Your task to perform on an android device: Show me popular videos on Youtube Image 0: 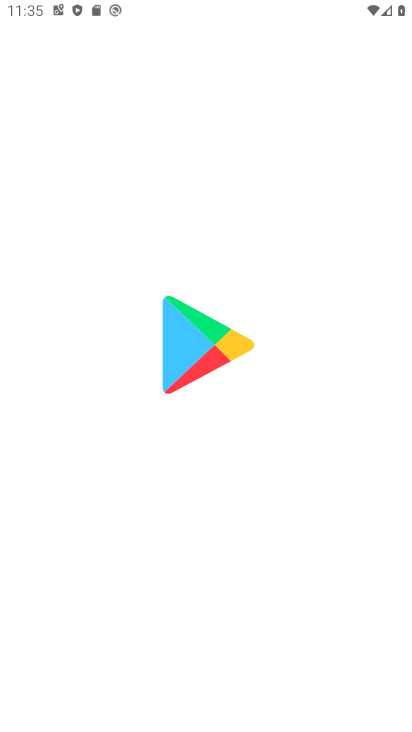
Step 0: press home button
Your task to perform on an android device: Show me popular videos on Youtube Image 1: 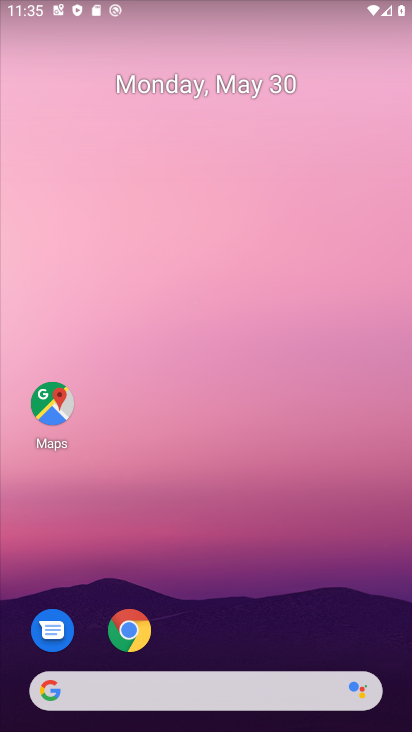
Step 1: drag from (273, 624) to (268, 6)
Your task to perform on an android device: Show me popular videos on Youtube Image 2: 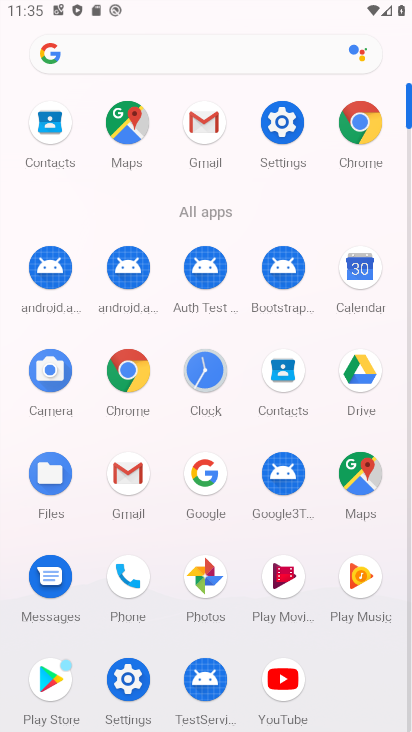
Step 2: click (280, 677)
Your task to perform on an android device: Show me popular videos on Youtube Image 3: 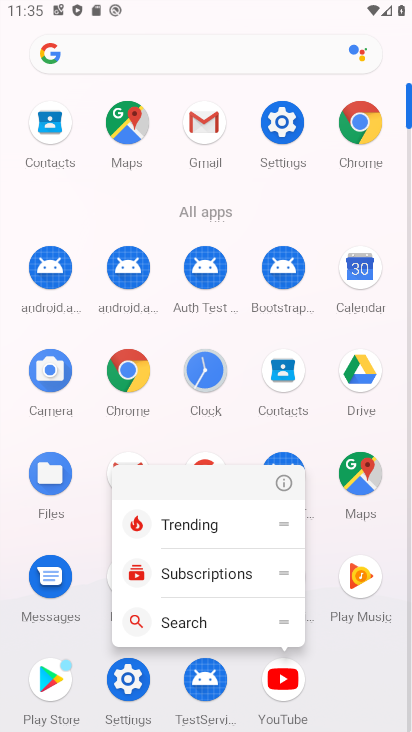
Step 3: click (281, 680)
Your task to perform on an android device: Show me popular videos on Youtube Image 4: 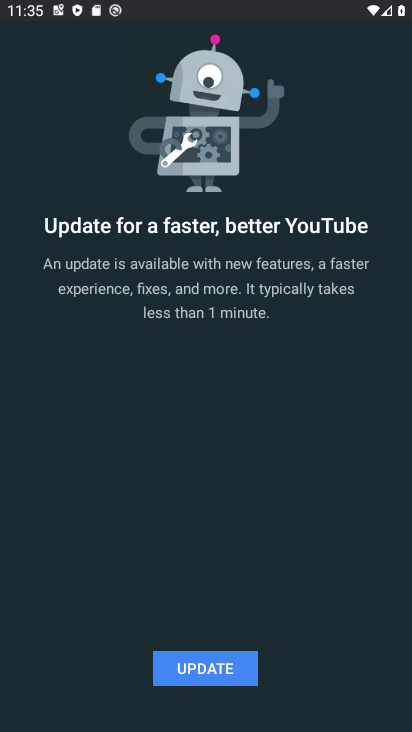
Step 4: click (211, 682)
Your task to perform on an android device: Show me popular videos on Youtube Image 5: 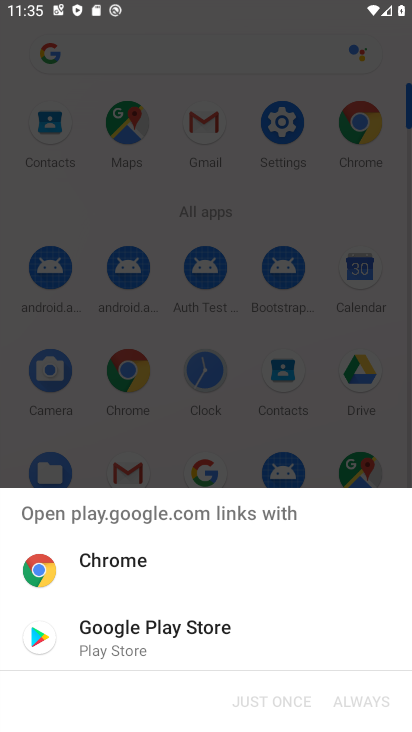
Step 5: click (68, 633)
Your task to perform on an android device: Show me popular videos on Youtube Image 6: 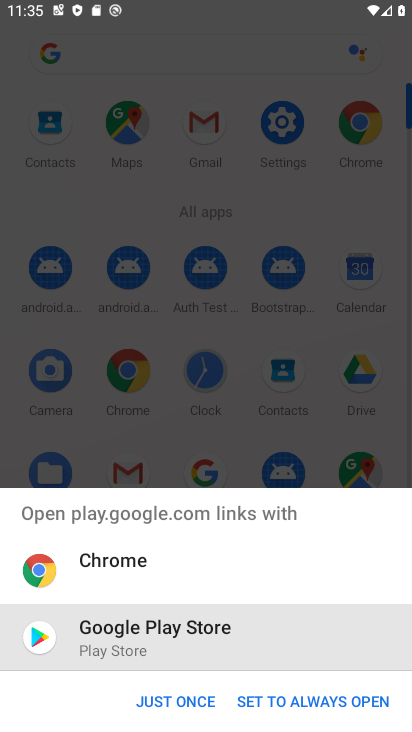
Step 6: click (149, 704)
Your task to perform on an android device: Show me popular videos on Youtube Image 7: 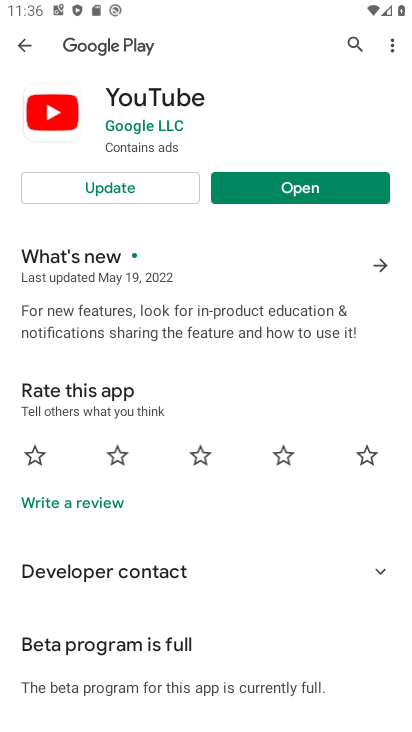
Step 7: click (104, 178)
Your task to perform on an android device: Show me popular videos on Youtube Image 8: 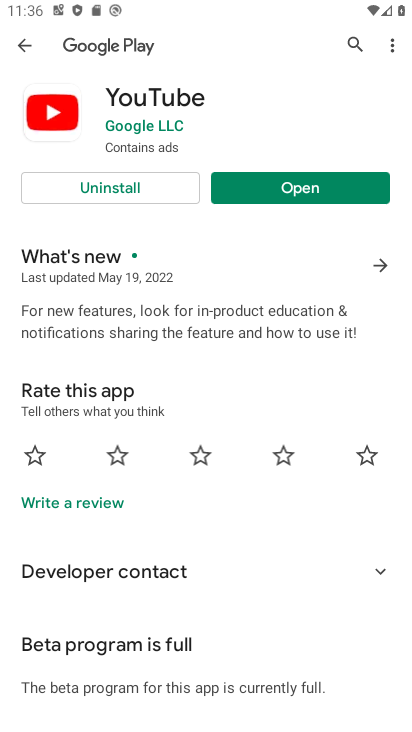
Step 8: click (300, 191)
Your task to perform on an android device: Show me popular videos on Youtube Image 9: 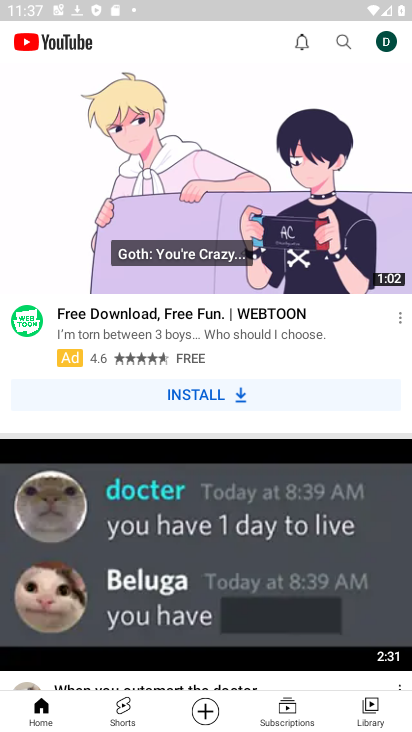
Step 9: click (30, 717)
Your task to perform on an android device: Show me popular videos on Youtube Image 10: 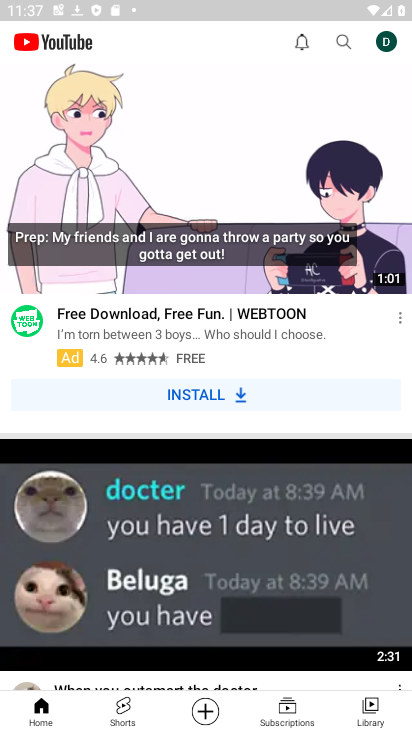
Step 10: drag from (140, 228) to (157, 563)
Your task to perform on an android device: Show me popular videos on Youtube Image 11: 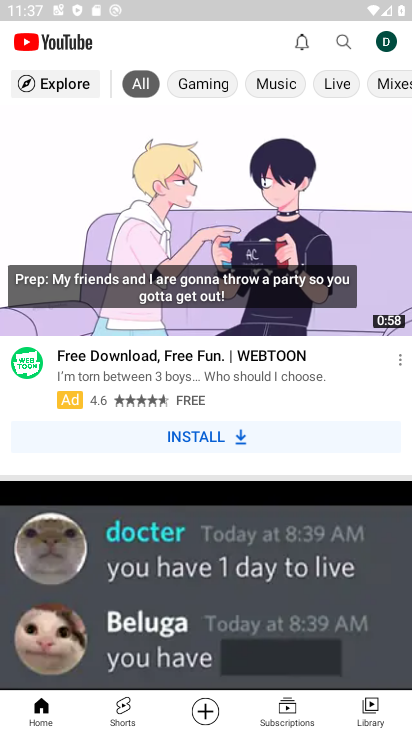
Step 11: click (64, 79)
Your task to perform on an android device: Show me popular videos on Youtube Image 12: 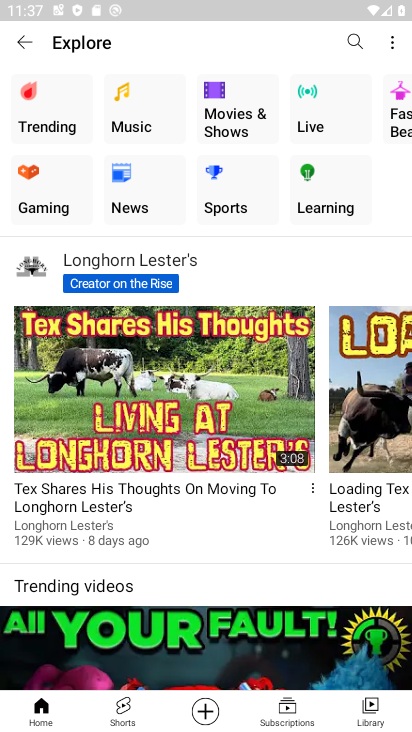
Step 12: click (48, 118)
Your task to perform on an android device: Show me popular videos on Youtube Image 13: 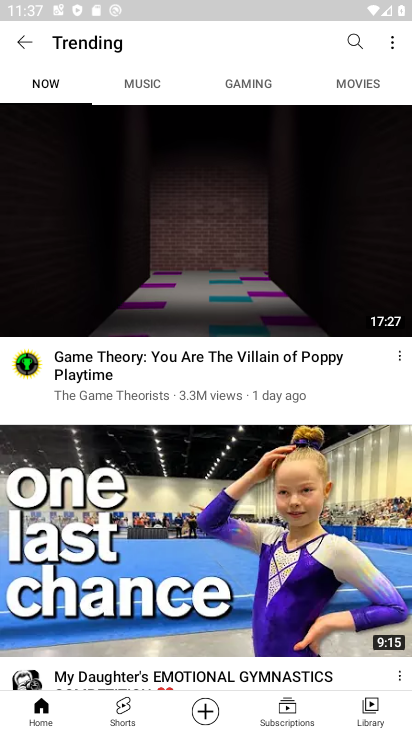
Step 13: task complete